Your task to perform on an android device: Is it going to rain today? Image 0: 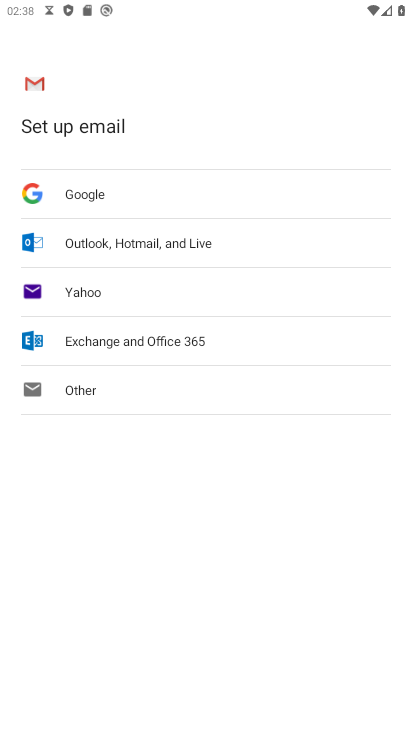
Step 0: press home button
Your task to perform on an android device: Is it going to rain today? Image 1: 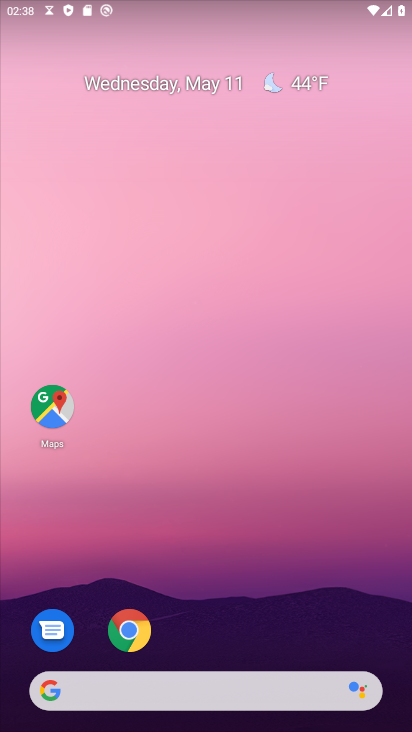
Step 1: click (266, 81)
Your task to perform on an android device: Is it going to rain today? Image 2: 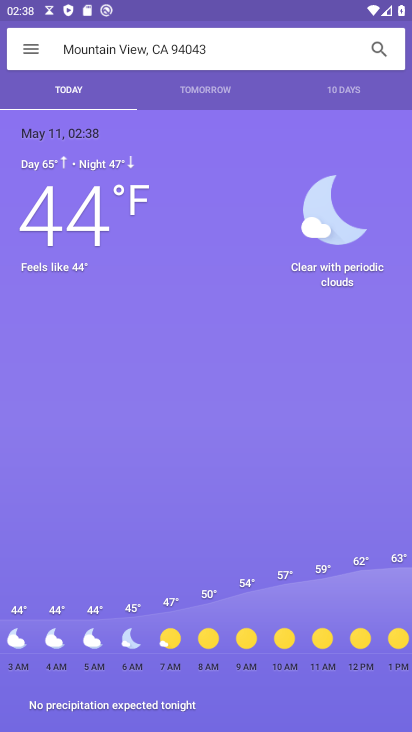
Step 2: task complete